Your task to perform on an android device: What's the weather going to be this weekend? Image 0: 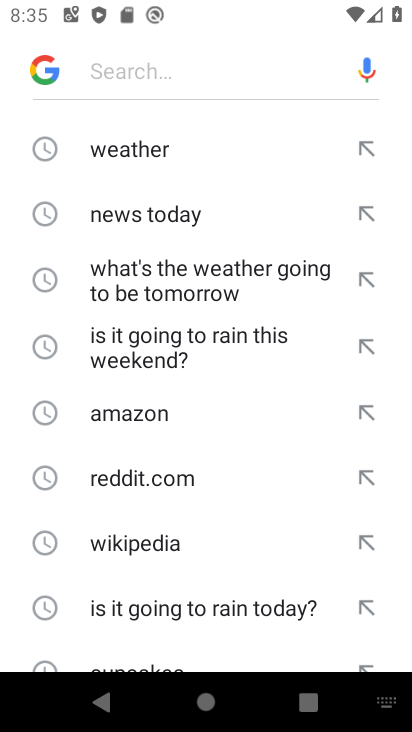
Step 0: click (134, 152)
Your task to perform on an android device: What's the weather going to be this weekend? Image 1: 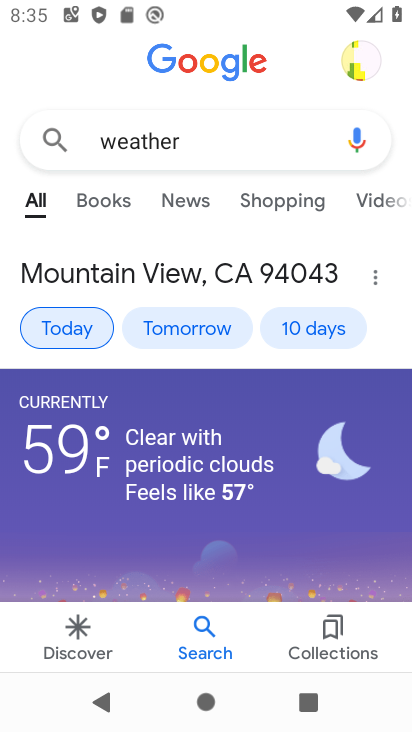
Step 1: click (314, 326)
Your task to perform on an android device: What's the weather going to be this weekend? Image 2: 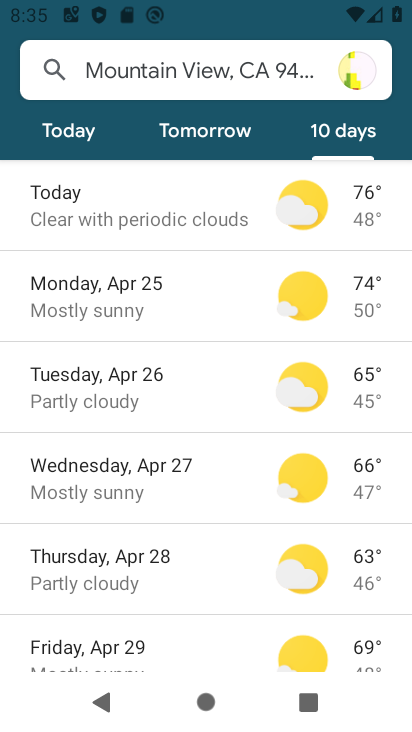
Step 2: task complete